Your task to perform on an android device: empty trash in the gmail app Image 0: 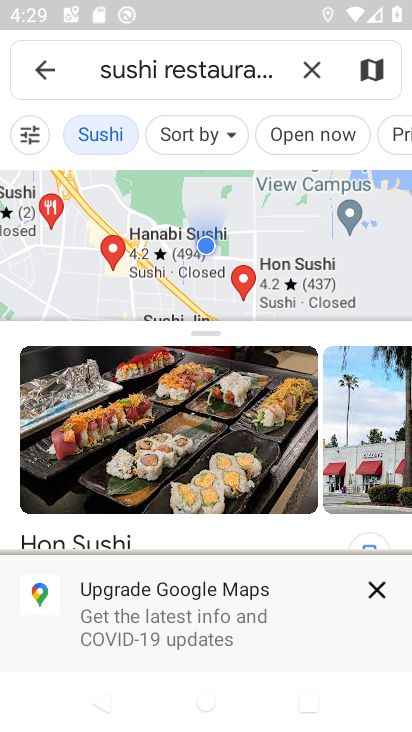
Step 0: press home button
Your task to perform on an android device: empty trash in the gmail app Image 1: 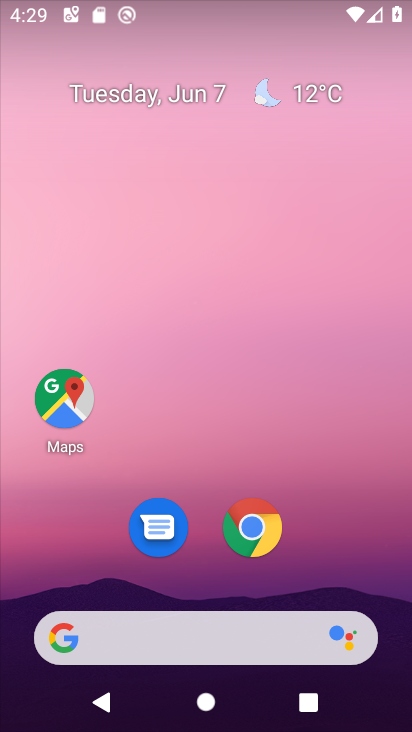
Step 1: drag from (220, 588) to (265, 121)
Your task to perform on an android device: empty trash in the gmail app Image 2: 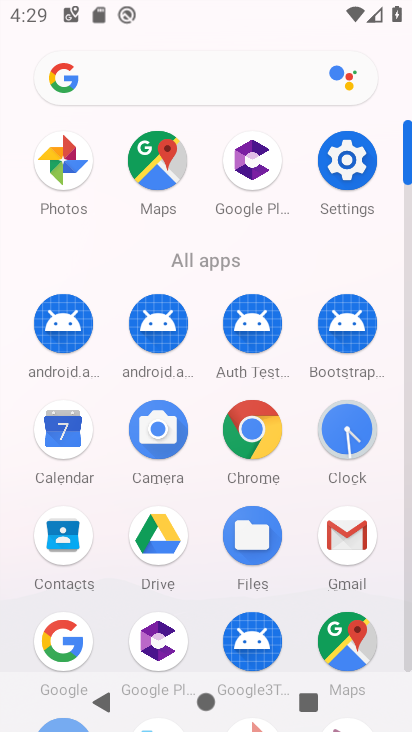
Step 2: click (352, 544)
Your task to perform on an android device: empty trash in the gmail app Image 3: 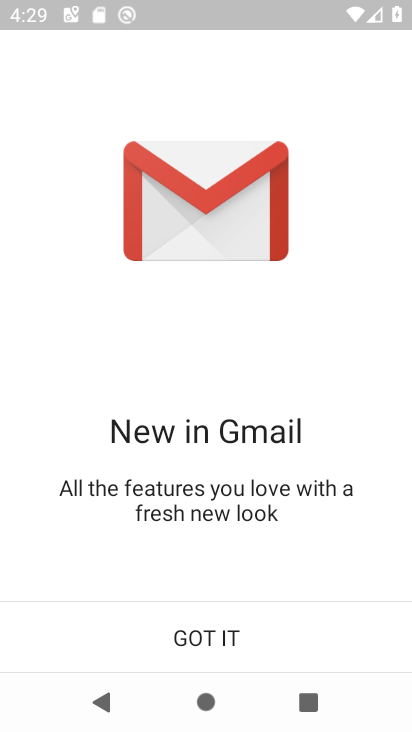
Step 3: click (221, 638)
Your task to perform on an android device: empty trash in the gmail app Image 4: 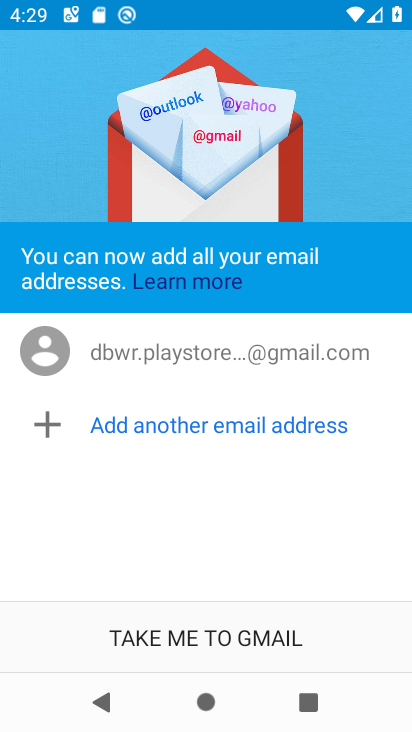
Step 4: click (221, 639)
Your task to perform on an android device: empty trash in the gmail app Image 5: 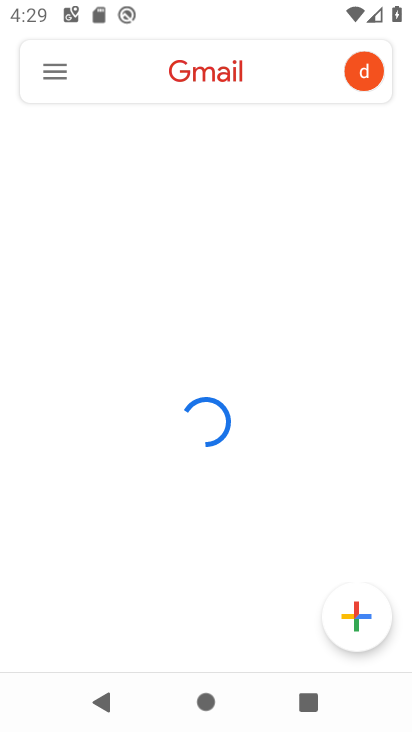
Step 5: click (51, 70)
Your task to perform on an android device: empty trash in the gmail app Image 6: 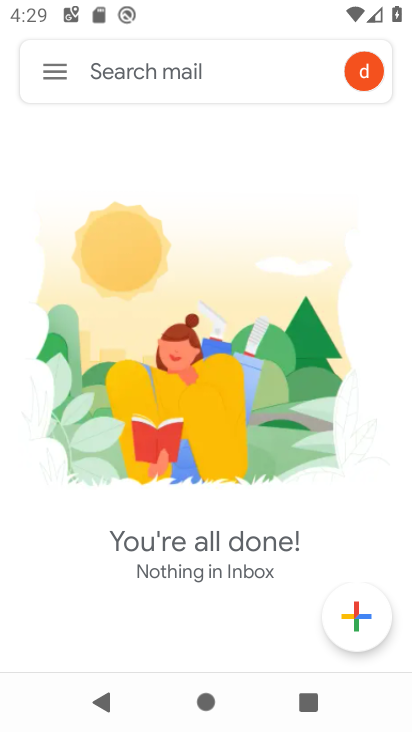
Step 6: click (43, 65)
Your task to perform on an android device: empty trash in the gmail app Image 7: 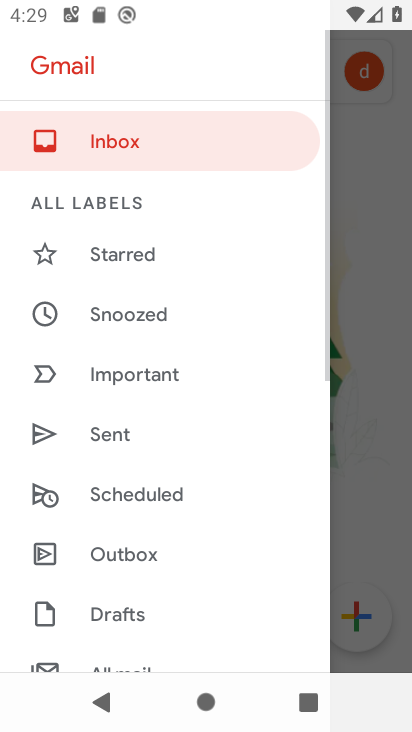
Step 7: drag from (124, 596) to (192, 92)
Your task to perform on an android device: empty trash in the gmail app Image 8: 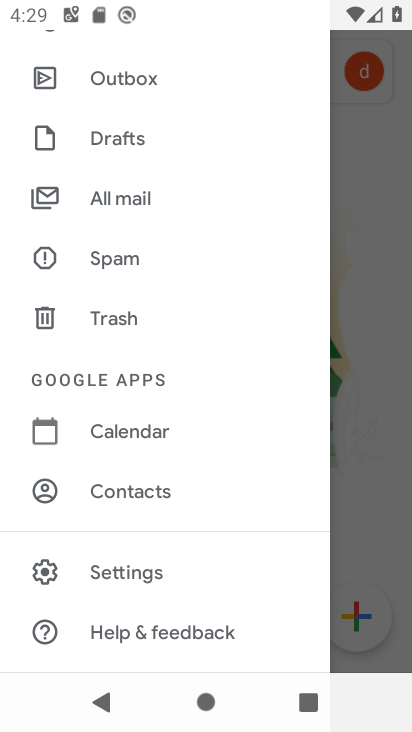
Step 8: click (108, 320)
Your task to perform on an android device: empty trash in the gmail app Image 9: 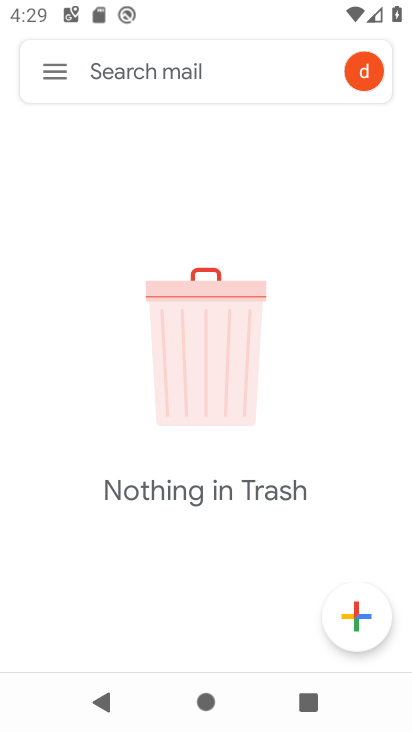
Step 9: task complete